Your task to perform on an android device: choose inbox layout in the gmail app Image 0: 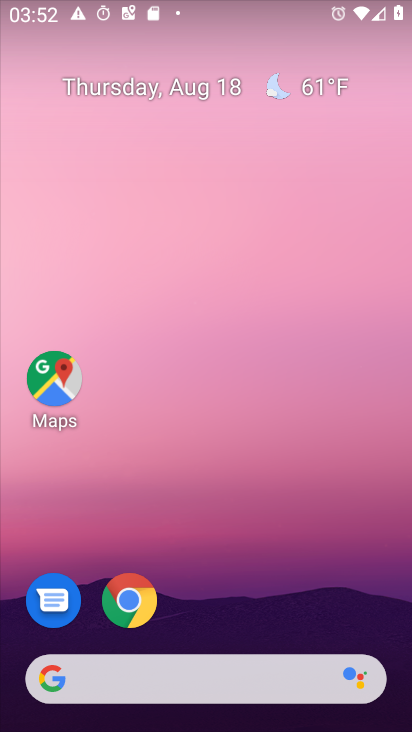
Step 0: press home button
Your task to perform on an android device: choose inbox layout in the gmail app Image 1: 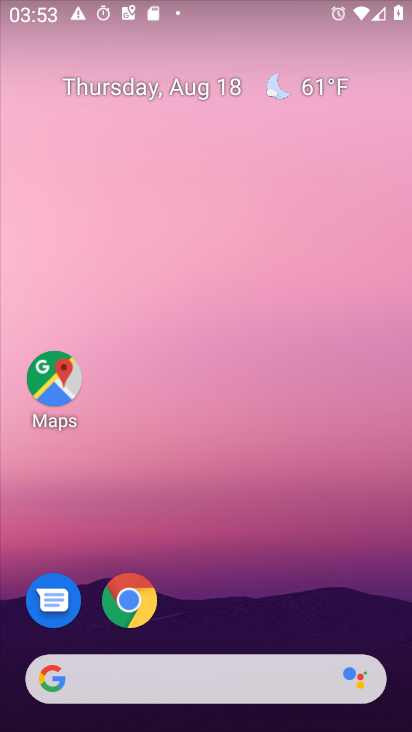
Step 1: drag from (214, 634) to (238, 4)
Your task to perform on an android device: choose inbox layout in the gmail app Image 2: 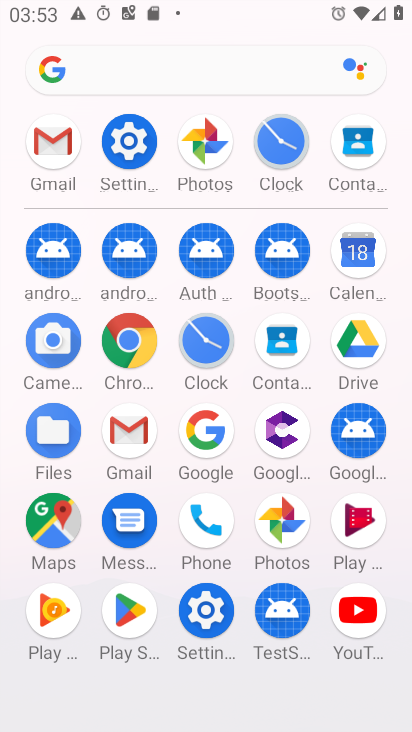
Step 2: click (48, 139)
Your task to perform on an android device: choose inbox layout in the gmail app Image 3: 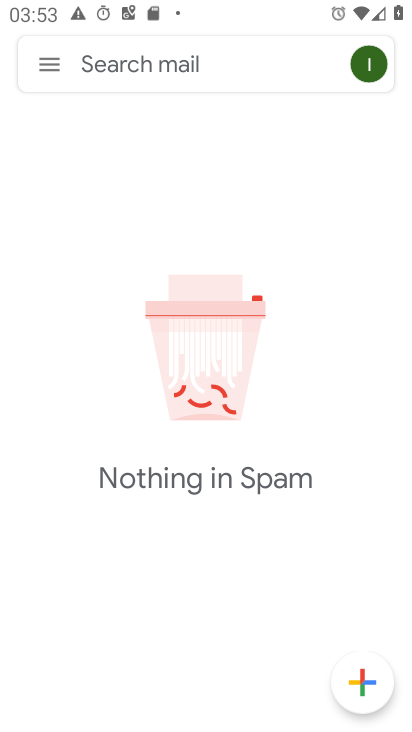
Step 3: click (43, 63)
Your task to perform on an android device: choose inbox layout in the gmail app Image 4: 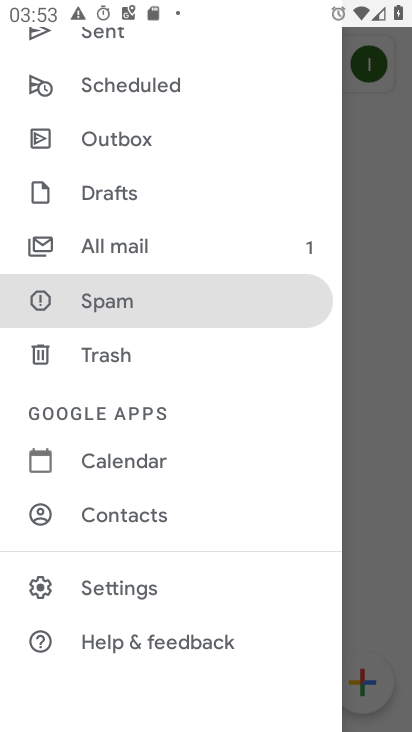
Step 4: drag from (183, 168) to (203, 589)
Your task to perform on an android device: choose inbox layout in the gmail app Image 5: 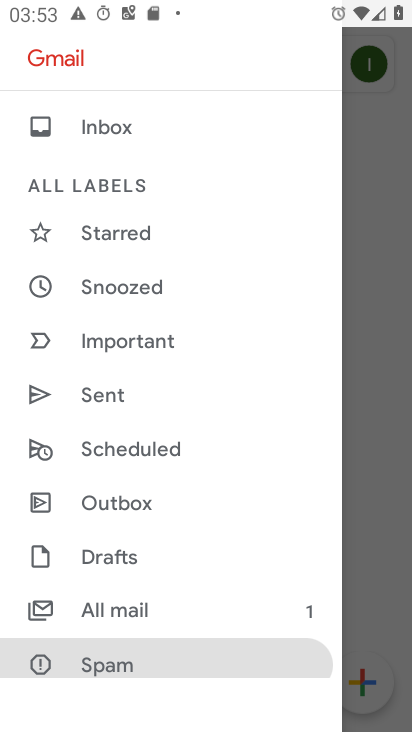
Step 5: drag from (215, 558) to (229, 19)
Your task to perform on an android device: choose inbox layout in the gmail app Image 6: 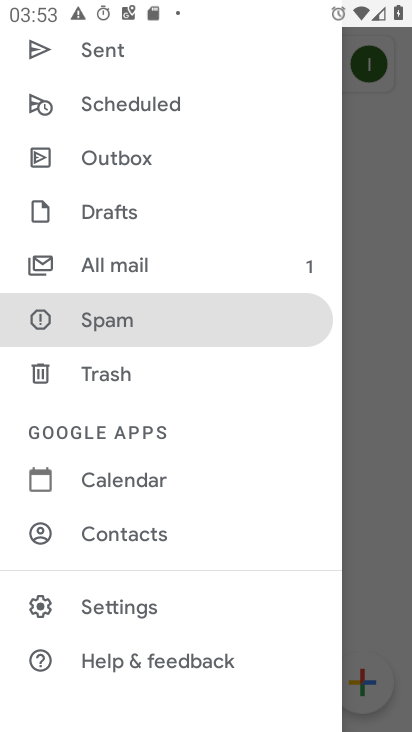
Step 6: click (99, 593)
Your task to perform on an android device: choose inbox layout in the gmail app Image 7: 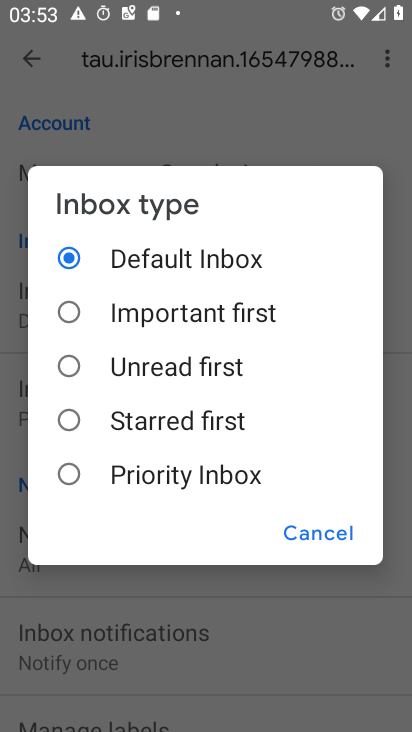
Step 7: click (71, 314)
Your task to perform on an android device: choose inbox layout in the gmail app Image 8: 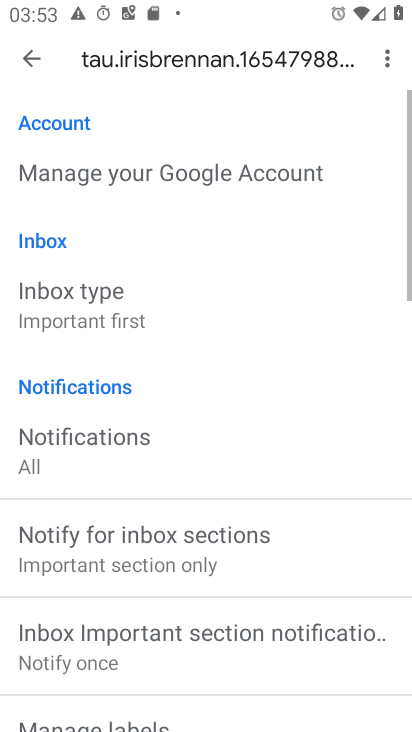
Step 8: task complete